Your task to perform on an android device: turn off picture-in-picture Image 0: 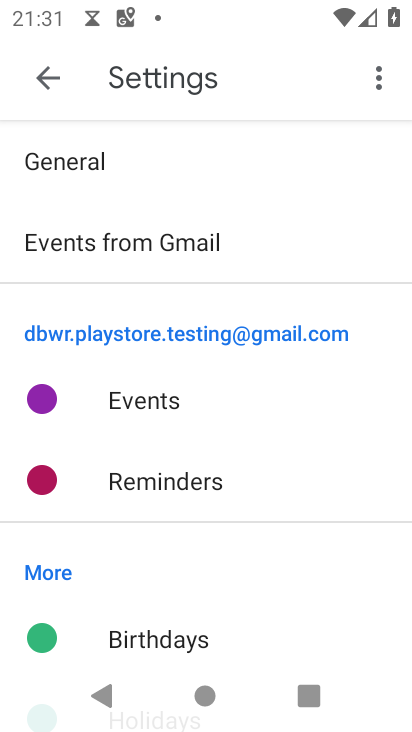
Step 0: press home button
Your task to perform on an android device: turn off picture-in-picture Image 1: 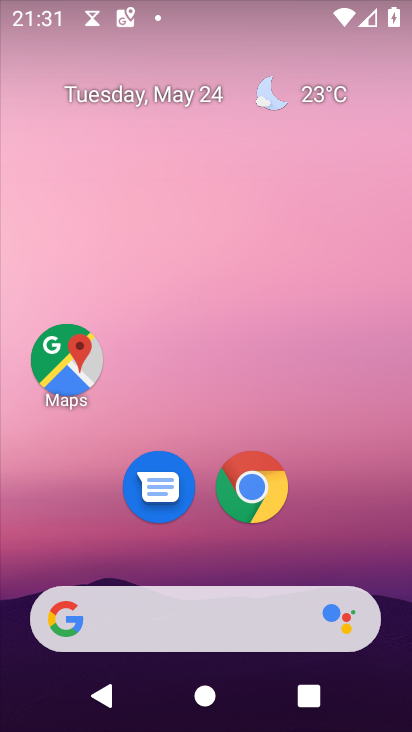
Step 1: click (264, 508)
Your task to perform on an android device: turn off picture-in-picture Image 2: 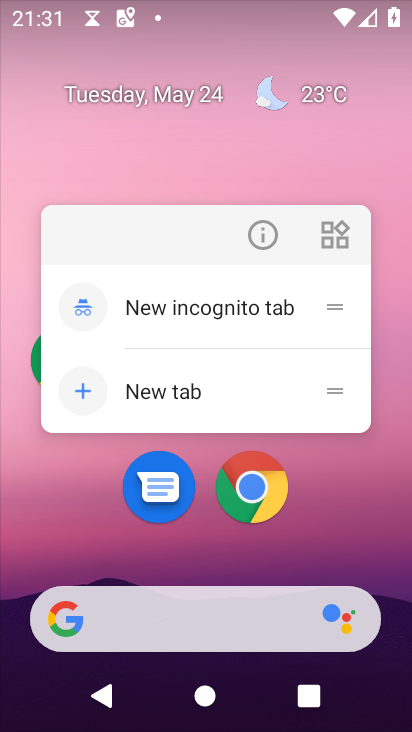
Step 2: click (257, 240)
Your task to perform on an android device: turn off picture-in-picture Image 3: 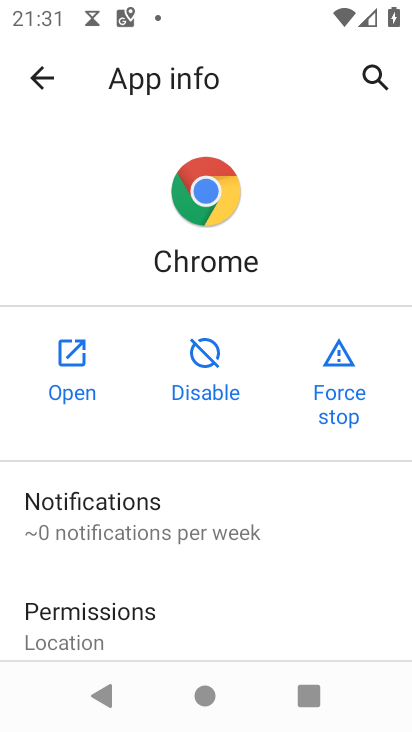
Step 3: drag from (212, 631) to (192, 297)
Your task to perform on an android device: turn off picture-in-picture Image 4: 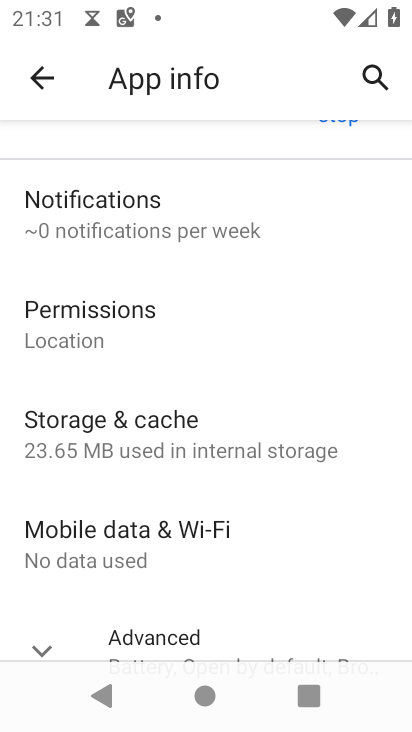
Step 4: drag from (205, 627) to (196, 393)
Your task to perform on an android device: turn off picture-in-picture Image 5: 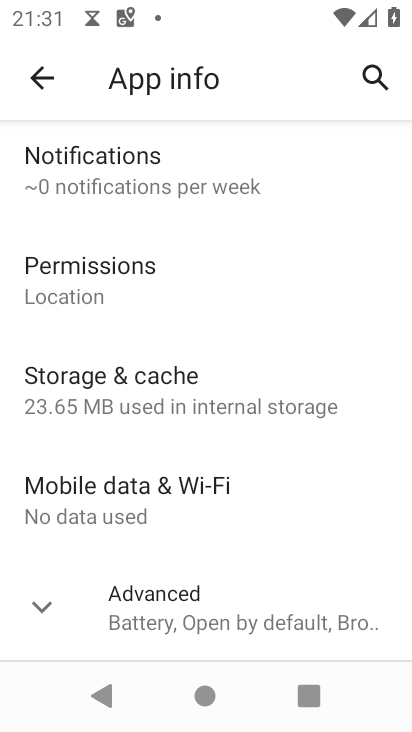
Step 5: click (220, 624)
Your task to perform on an android device: turn off picture-in-picture Image 6: 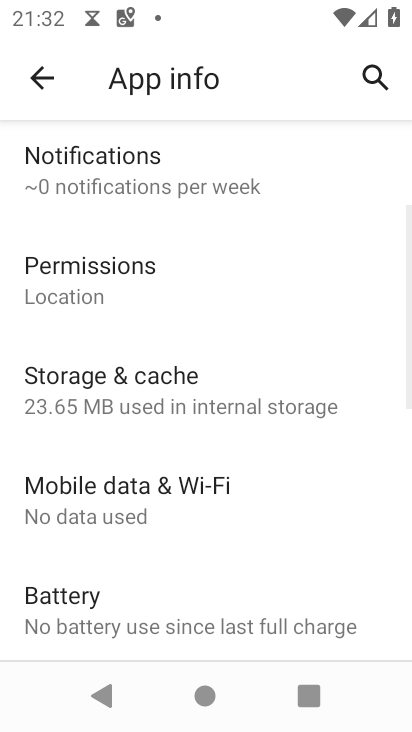
Step 6: drag from (220, 618) to (214, 228)
Your task to perform on an android device: turn off picture-in-picture Image 7: 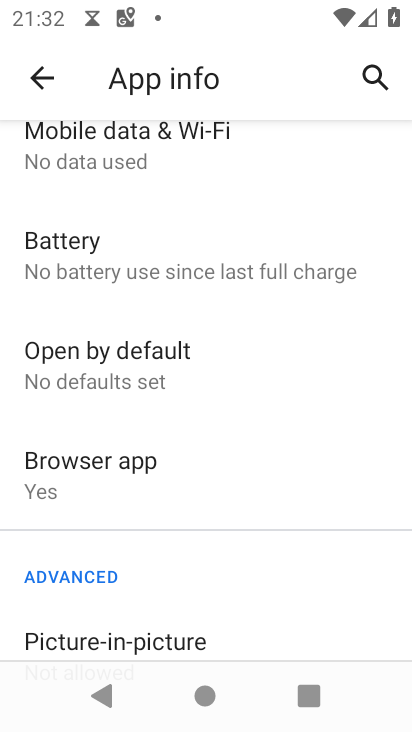
Step 7: drag from (275, 686) to (280, 289)
Your task to perform on an android device: turn off picture-in-picture Image 8: 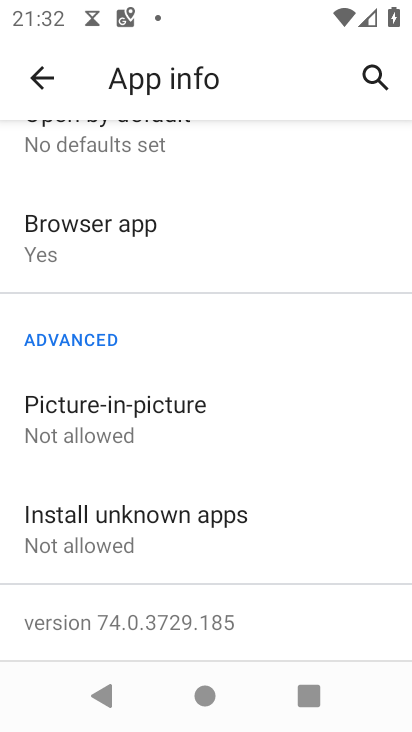
Step 8: click (179, 425)
Your task to perform on an android device: turn off picture-in-picture Image 9: 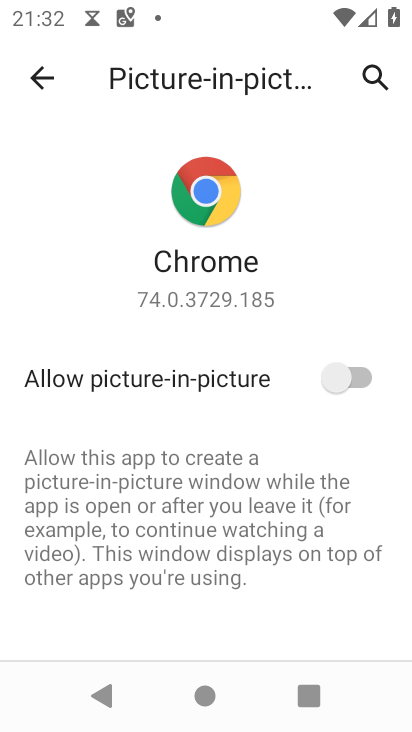
Step 9: task complete